Your task to perform on an android device: change text size in settings app Image 0: 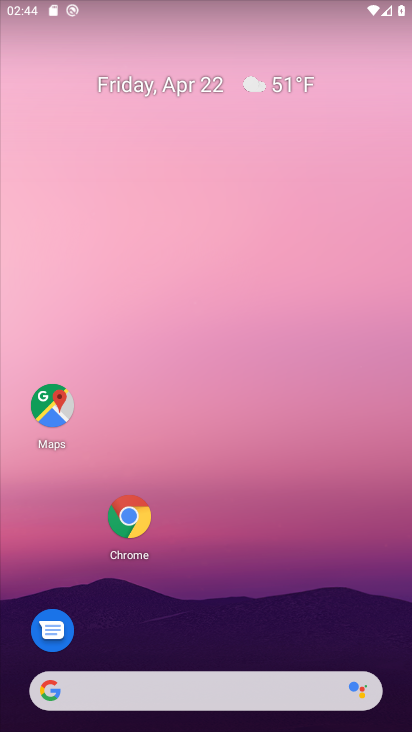
Step 0: drag from (373, 315) to (361, 154)
Your task to perform on an android device: change text size in settings app Image 1: 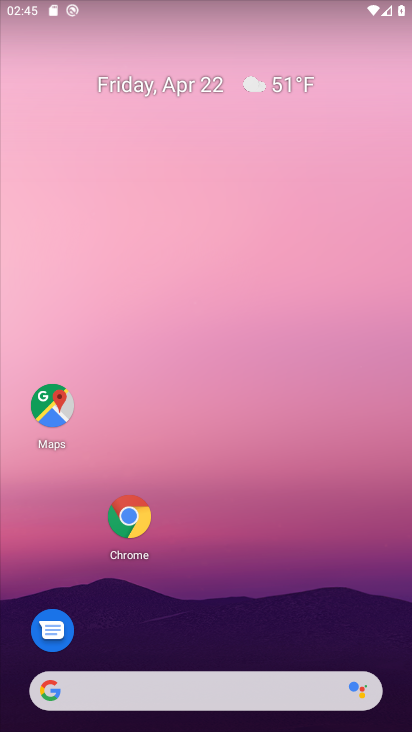
Step 1: drag from (332, 528) to (298, 211)
Your task to perform on an android device: change text size in settings app Image 2: 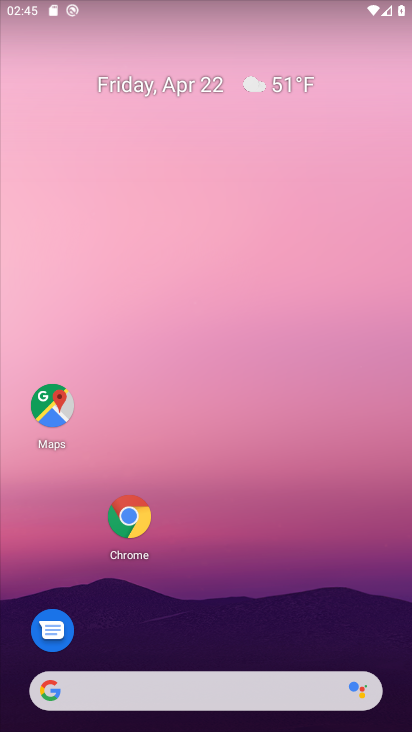
Step 2: drag from (357, 634) to (326, 261)
Your task to perform on an android device: change text size in settings app Image 3: 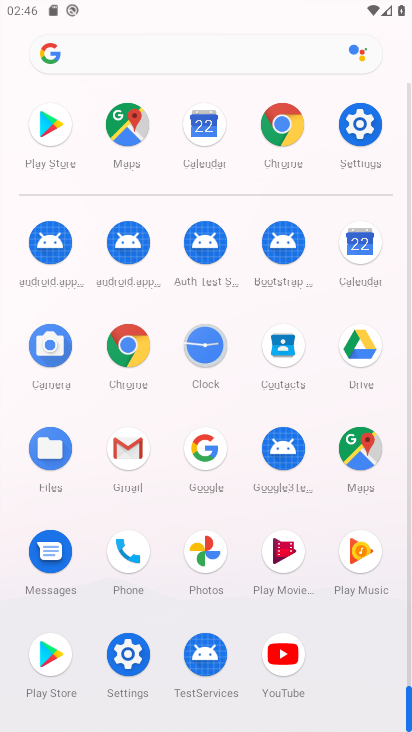
Step 3: click (355, 120)
Your task to perform on an android device: change text size in settings app Image 4: 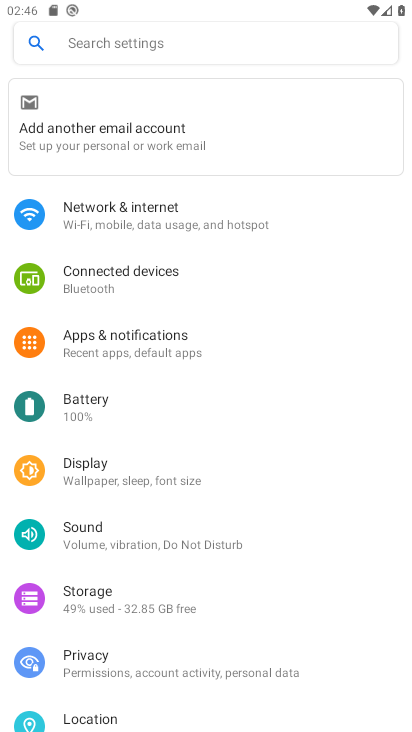
Step 4: click (83, 464)
Your task to perform on an android device: change text size in settings app Image 5: 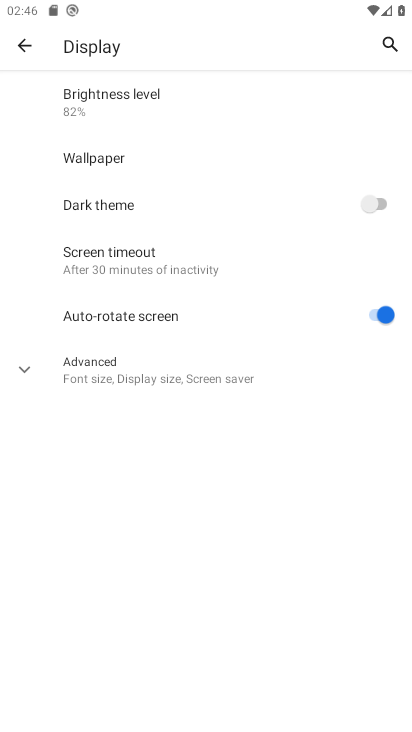
Step 5: click (87, 376)
Your task to perform on an android device: change text size in settings app Image 6: 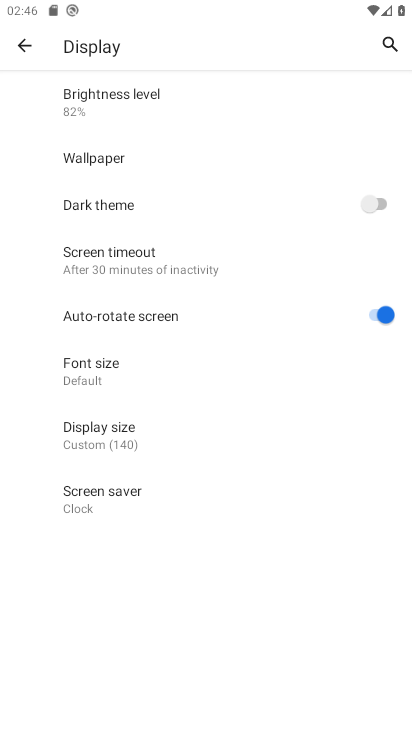
Step 6: click (89, 358)
Your task to perform on an android device: change text size in settings app Image 7: 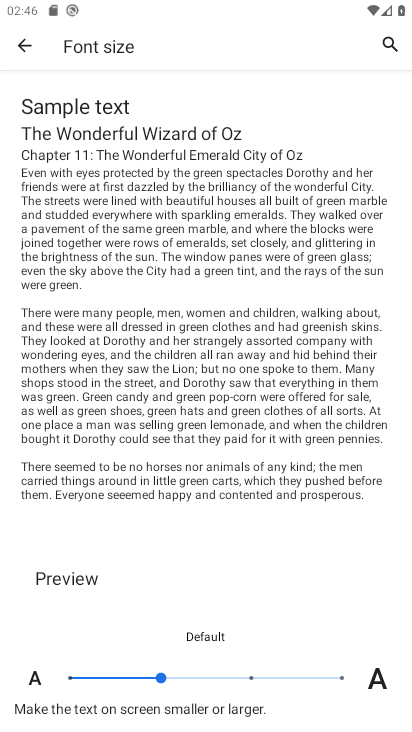
Step 7: click (200, 675)
Your task to perform on an android device: change text size in settings app Image 8: 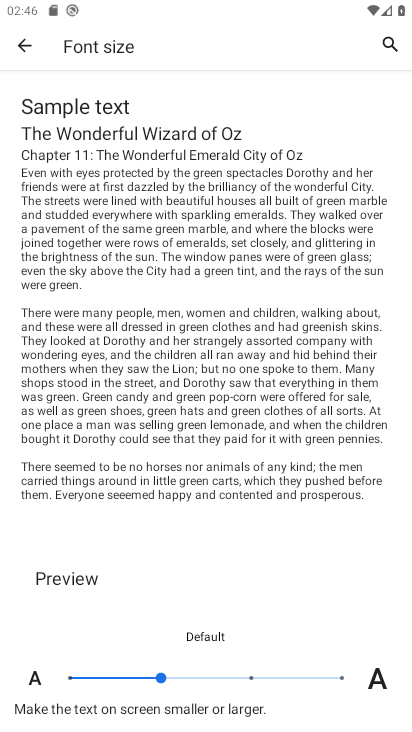
Step 8: click (223, 677)
Your task to perform on an android device: change text size in settings app Image 9: 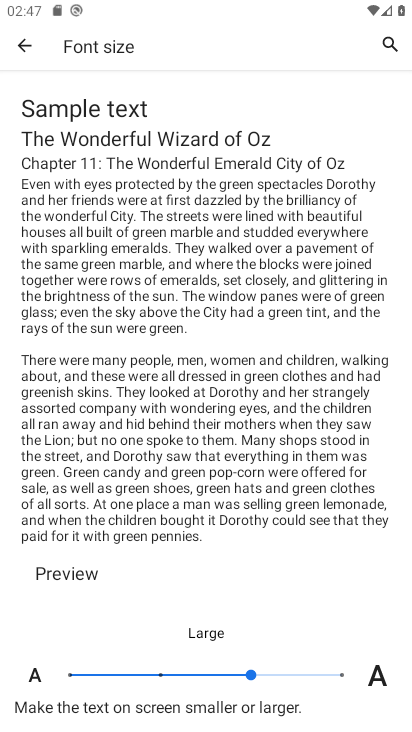
Step 9: task complete